Your task to perform on an android device: Clear the cart on newegg.com. Search for "asus zenbook" on newegg.com, select the first entry, and add it to the cart. Image 0: 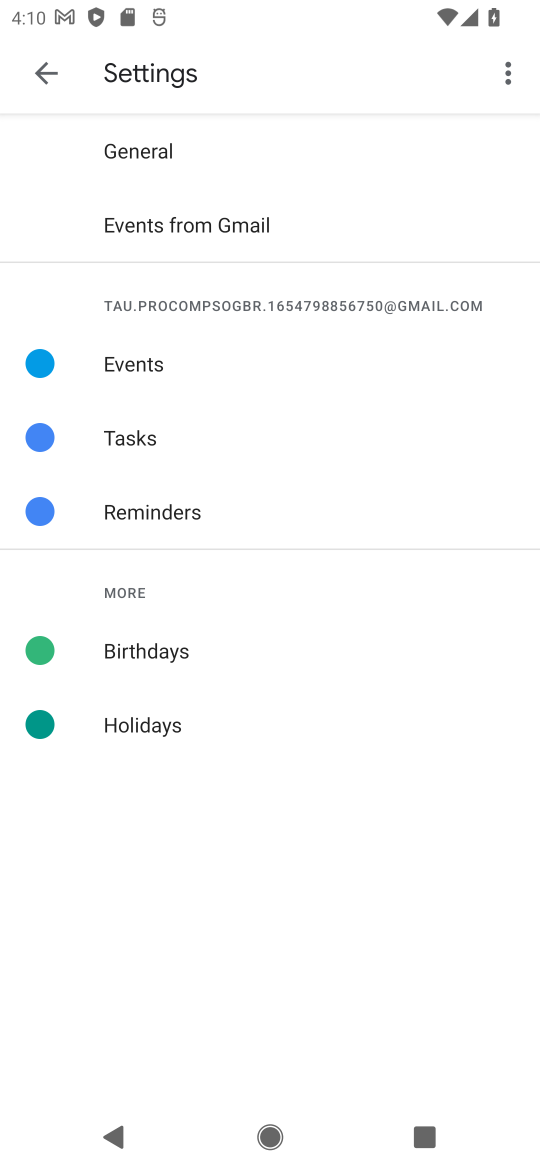
Step 0: press home button
Your task to perform on an android device: Clear the cart on newegg.com. Search for "asus zenbook" on newegg.com, select the first entry, and add it to the cart. Image 1: 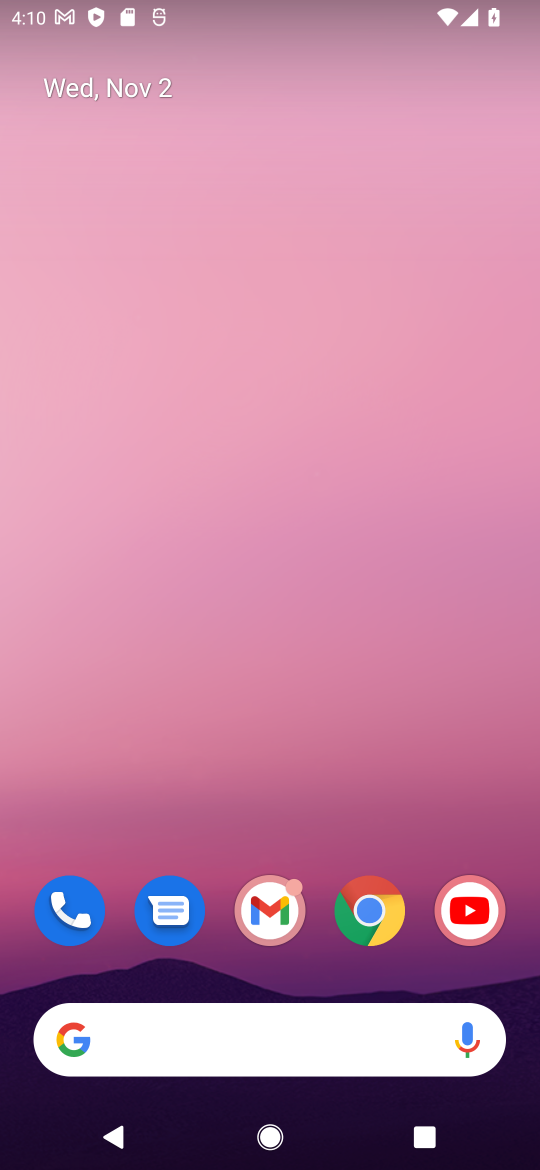
Step 1: click (371, 912)
Your task to perform on an android device: Clear the cart on newegg.com. Search for "asus zenbook" on newegg.com, select the first entry, and add it to the cart. Image 2: 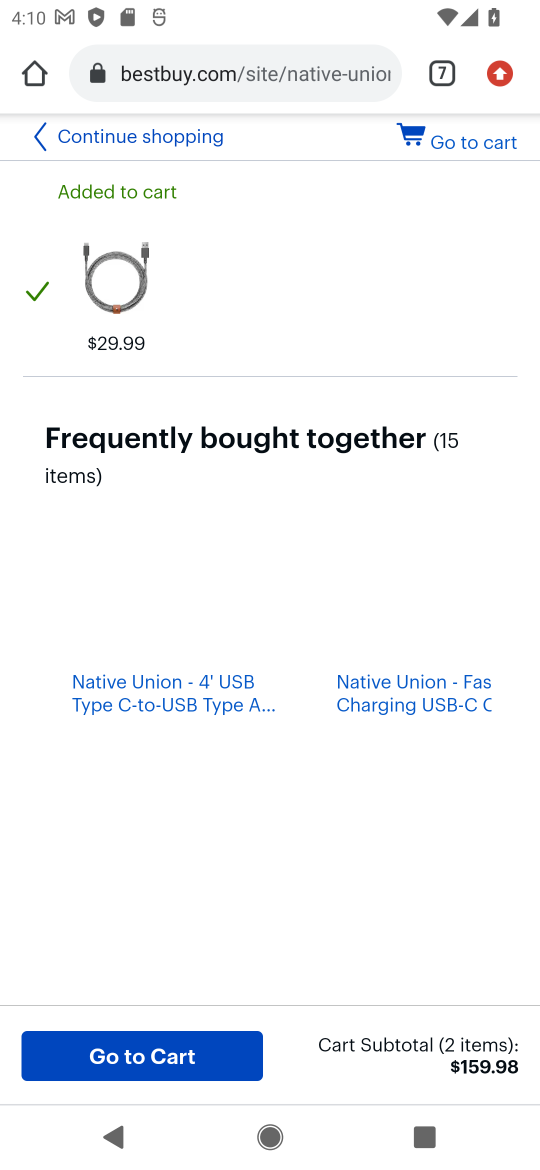
Step 2: click (441, 74)
Your task to perform on an android device: Clear the cart on newegg.com. Search for "asus zenbook" on newegg.com, select the first entry, and add it to the cart. Image 3: 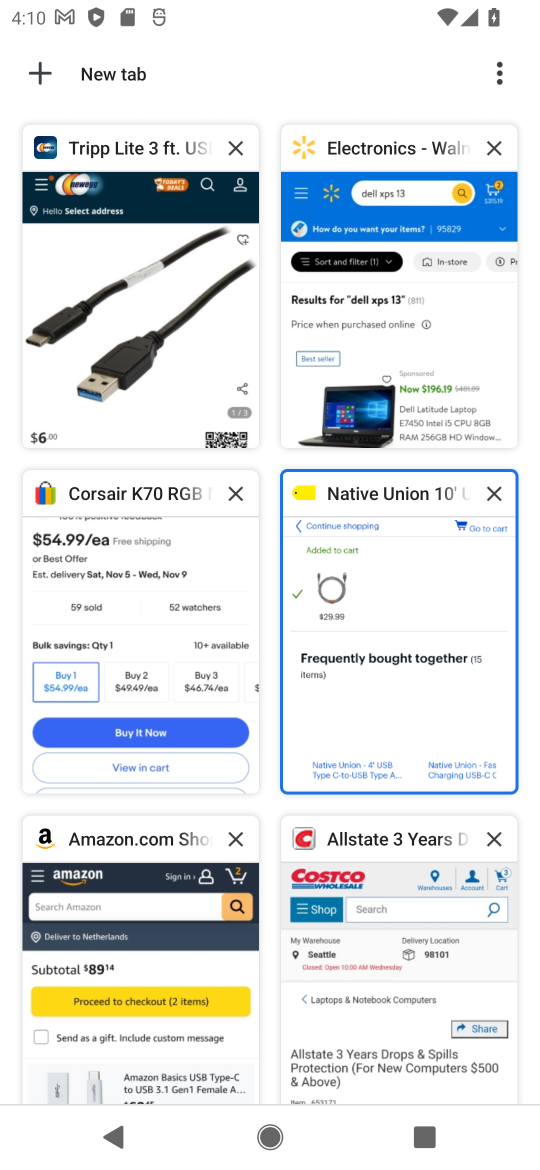
Step 3: click (210, 291)
Your task to perform on an android device: Clear the cart on newegg.com. Search for "asus zenbook" on newegg.com, select the first entry, and add it to the cart. Image 4: 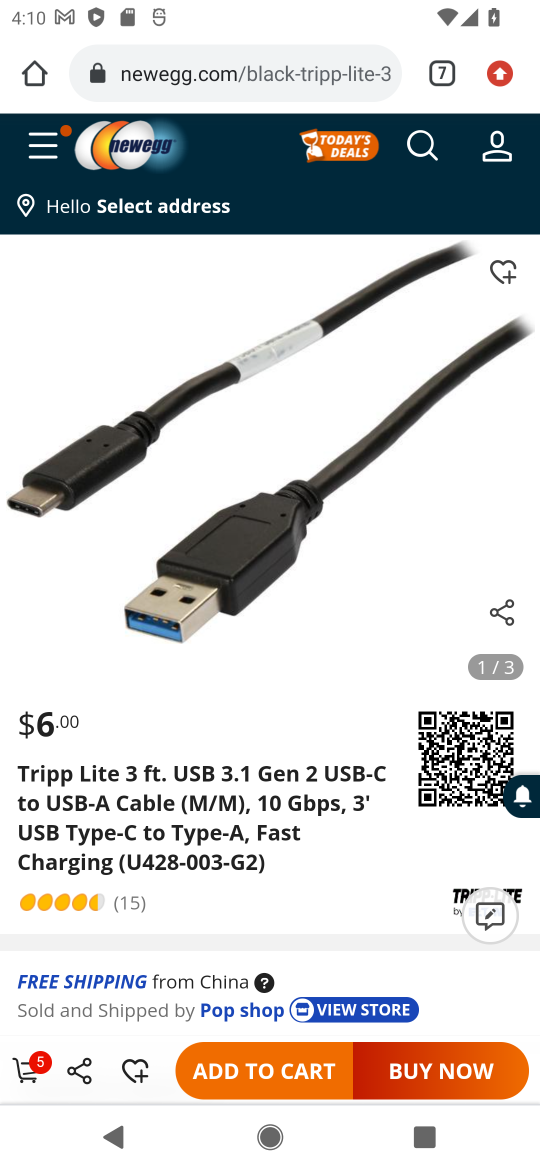
Step 4: click (32, 1082)
Your task to perform on an android device: Clear the cart on newegg.com. Search for "asus zenbook" on newegg.com, select the first entry, and add it to the cart. Image 5: 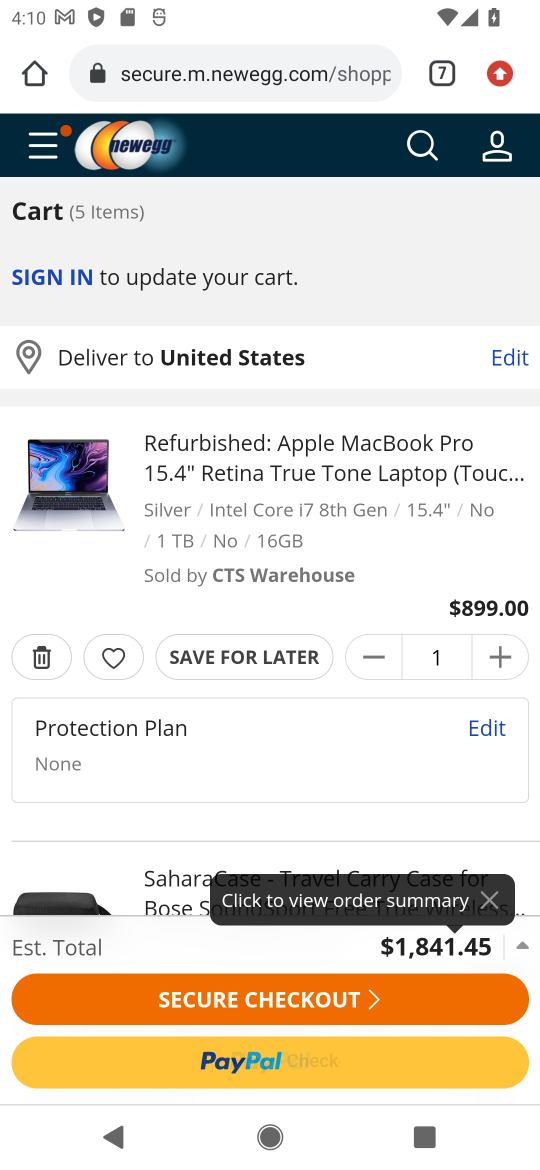
Step 5: click (40, 657)
Your task to perform on an android device: Clear the cart on newegg.com. Search for "asus zenbook" on newegg.com, select the first entry, and add it to the cart. Image 6: 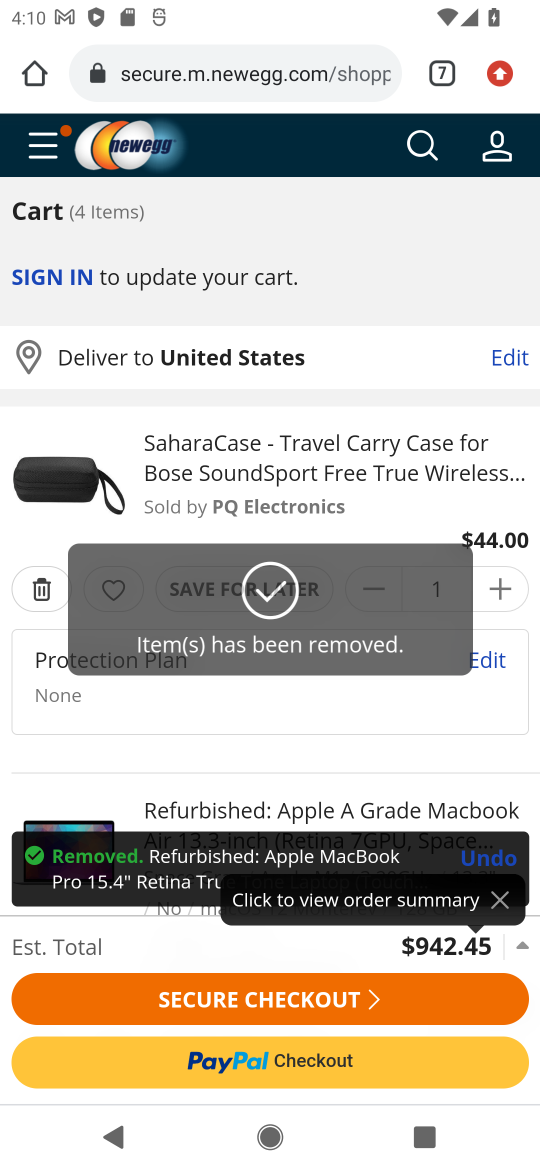
Step 6: click (35, 593)
Your task to perform on an android device: Clear the cart on newegg.com. Search for "asus zenbook" on newegg.com, select the first entry, and add it to the cart. Image 7: 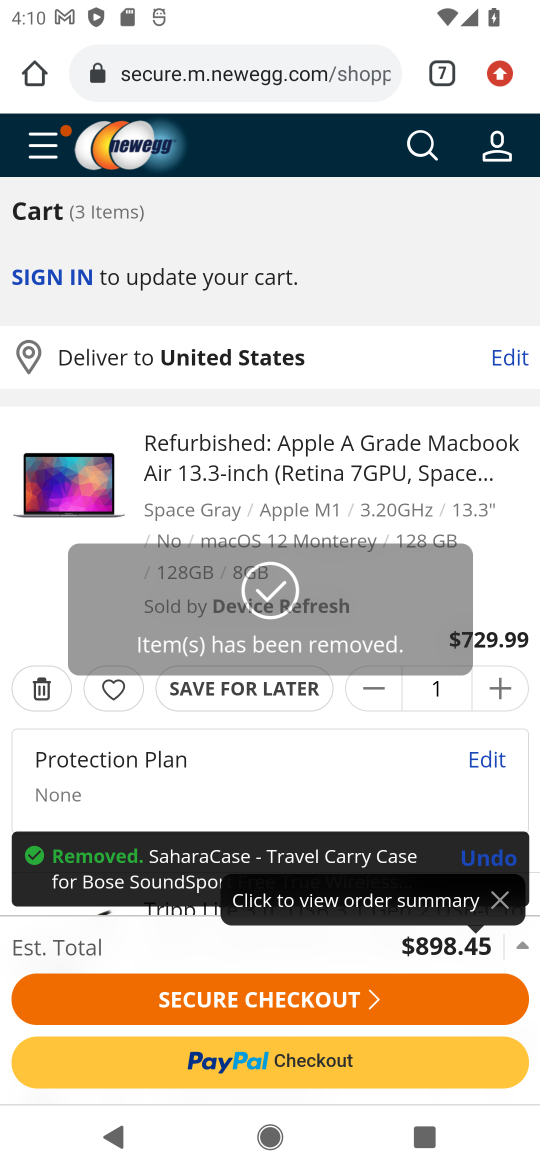
Step 7: click (46, 684)
Your task to perform on an android device: Clear the cart on newegg.com. Search for "asus zenbook" on newegg.com, select the first entry, and add it to the cart. Image 8: 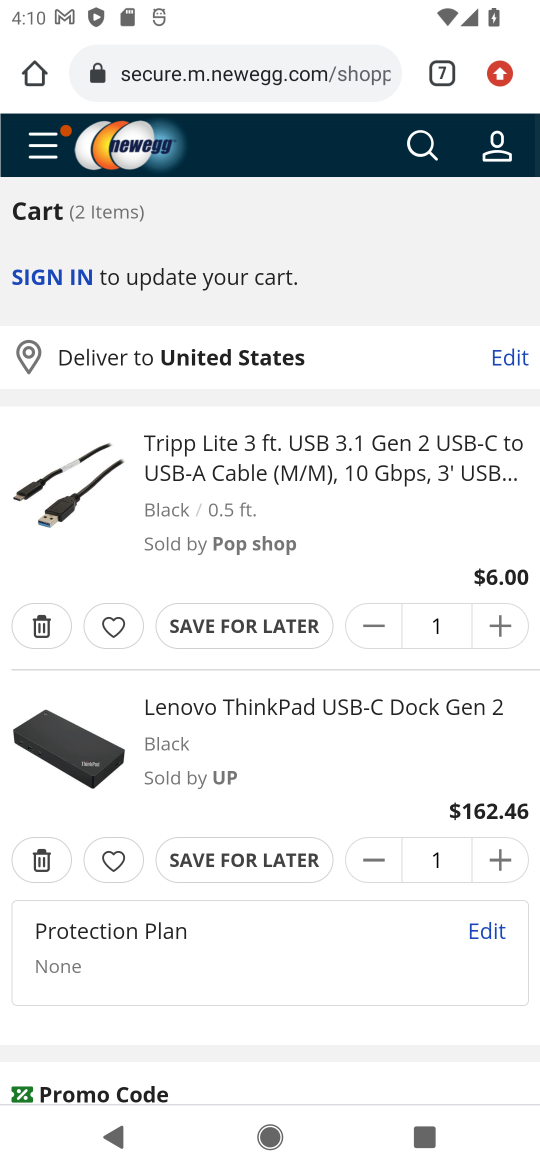
Step 8: click (36, 635)
Your task to perform on an android device: Clear the cart on newegg.com. Search for "asus zenbook" on newegg.com, select the first entry, and add it to the cart. Image 9: 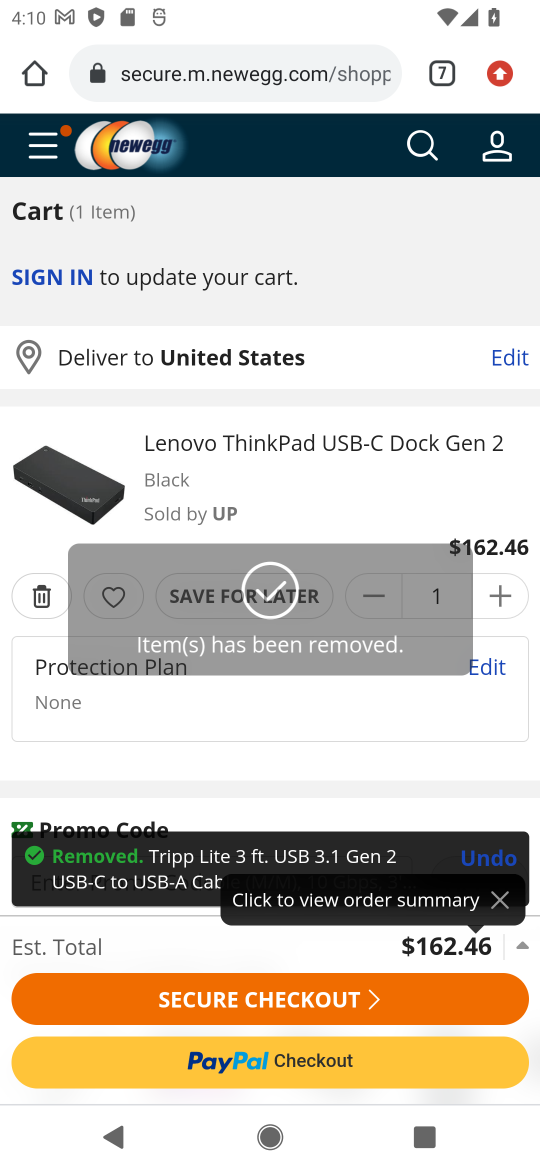
Step 9: click (47, 608)
Your task to perform on an android device: Clear the cart on newegg.com. Search for "asus zenbook" on newegg.com, select the first entry, and add it to the cart. Image 10: 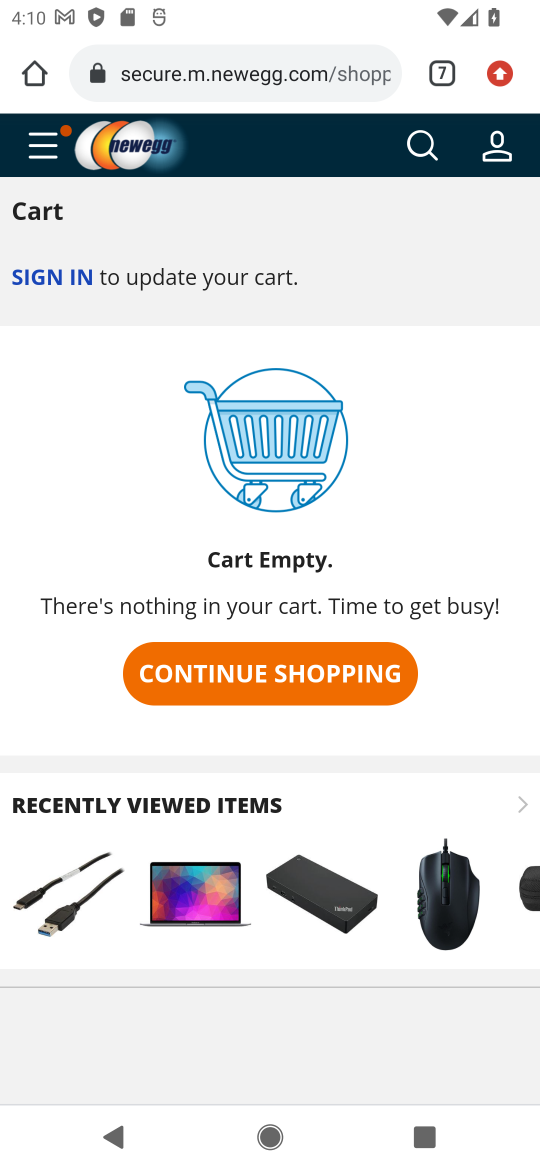
Step 10: click (439, 144)
Your task to perform on an android device: Clear the cart on newegg.com. Search for "asus zenbook" on newegg.com, select the first entry, and add it to the cart. Image 11: 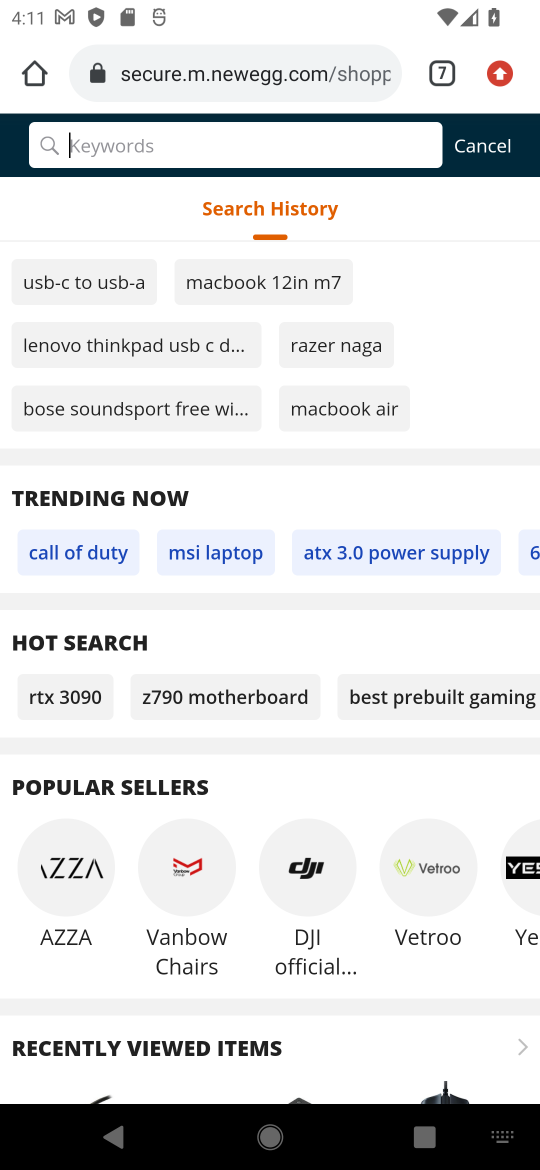
Step 11: type "asus zenbook"
Your task to perform on an android device: Clear the cart on newegg.com. Search for "asus zenbook" on newegg.com, select the first entry, and add it to the cart. Image 12: 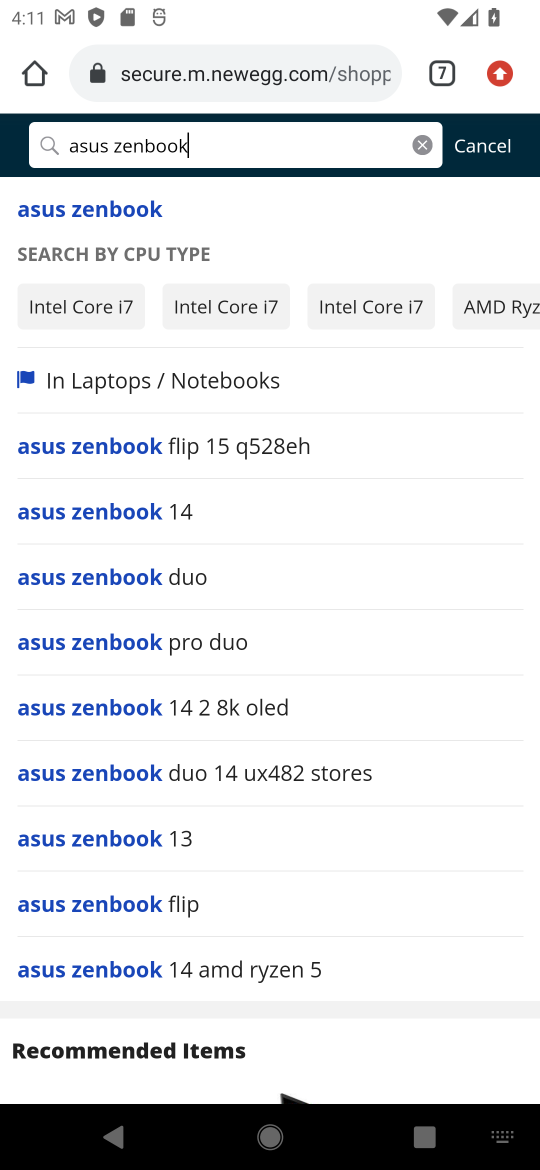
Step 12: click (88, 195)
Your task to perform on an android device: Clear the cart on newegg.com. Search for "asus zenbook" on newegg.com, select the first entry, and add it to the cart. Image 13: 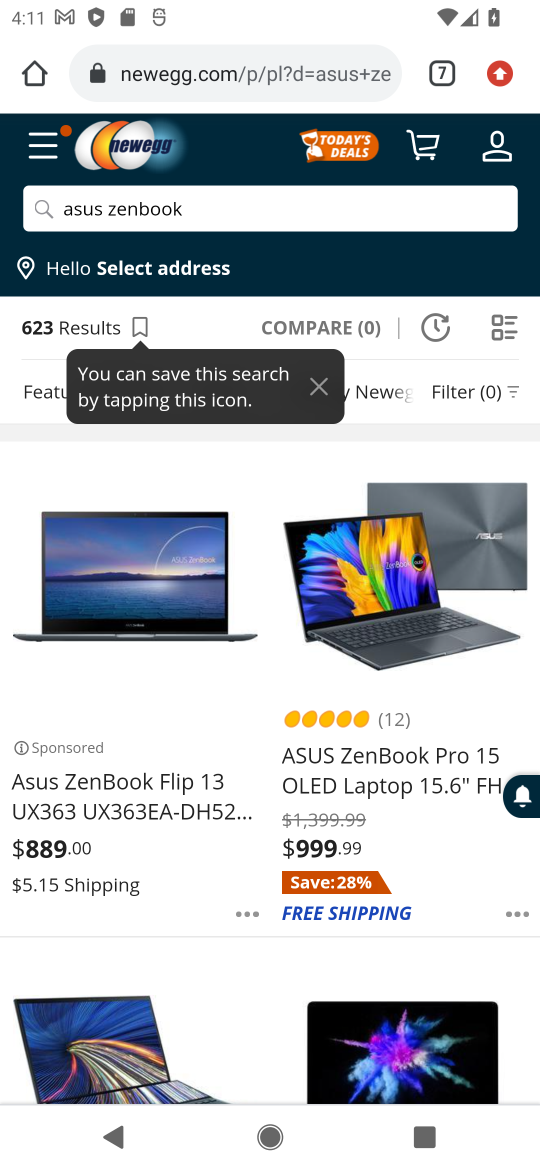
Step 13: click (339, 779)
Your task to perform on an android device: Clear the cart on newegg.com. Search for "asus zenbook" on newegg.com, select the first entry, and add it to the cart. Image 14: 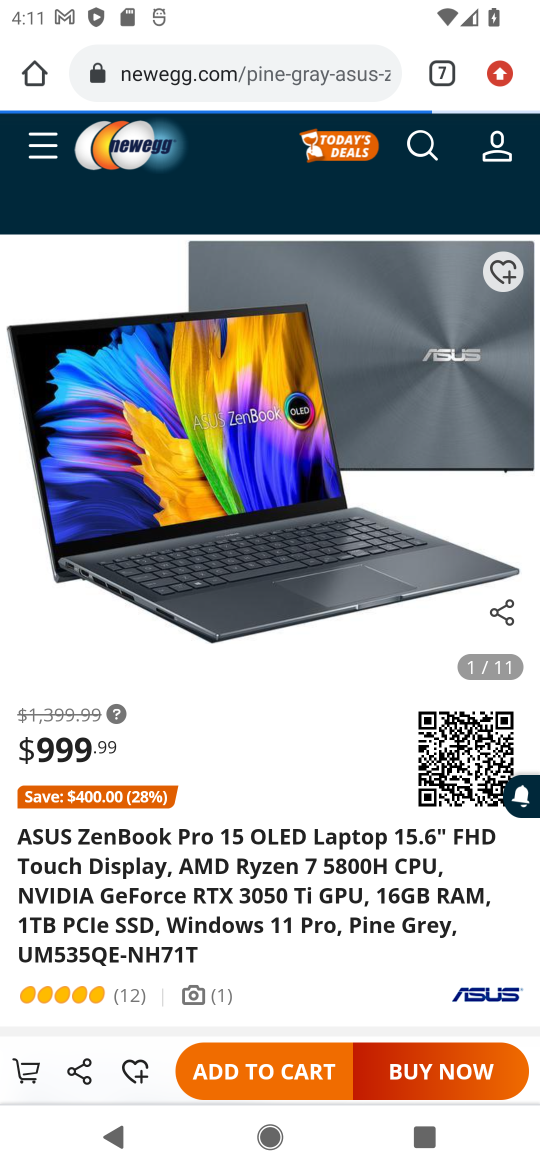
Step 14: click (286, 1085)
Your task to perform on an android device: Clear the cart on newegg.com. Search for "asus zenbook" on newegg.com, select the first entry, and add it to the cart. Image 15: 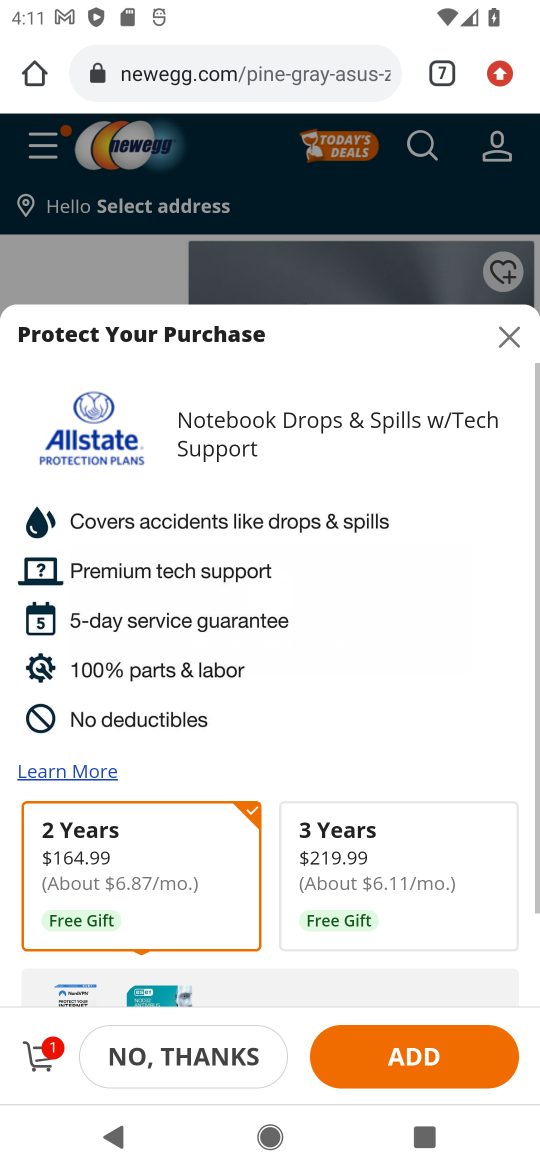
Step 15: task complete